Your task to perform on an android device: Go to privacy settings Image 0: 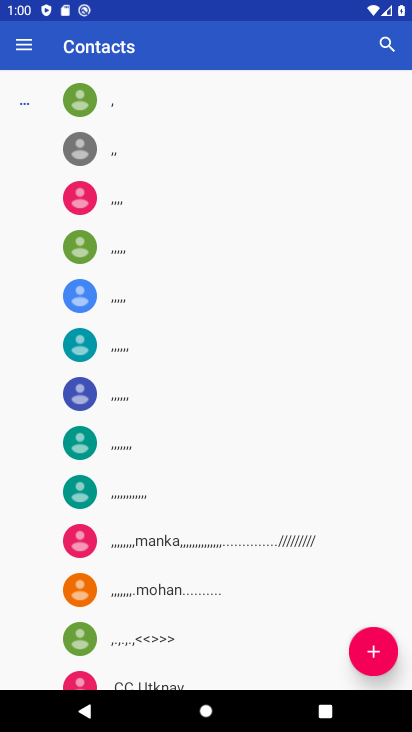
Step 0: press home button
Your task to perform on an android device: Go to privacy settings Image 1: 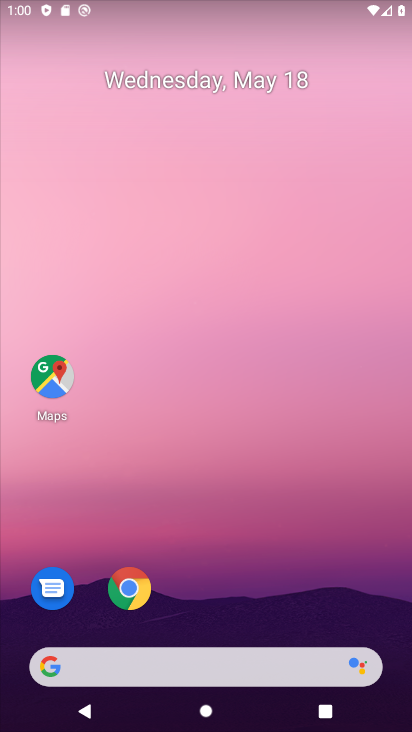
Step 1: drag from (336, 547) to (321, 59)
Your task to perform on an android device: Go to privacy settings Image 2: 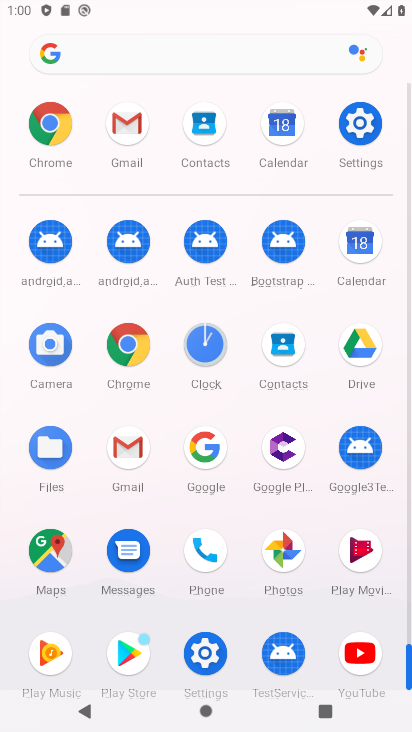
Step 2: click (368, 136)
Your task to perform on an android device: Go to privacy settings Image 3: 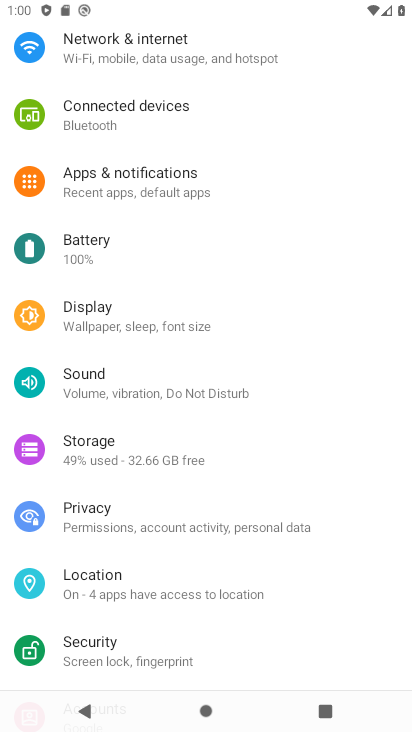
Step 3: drag from (341, 613) to (341, 343)
Your task to perform on an android device: Go to privacy settings Image 4: 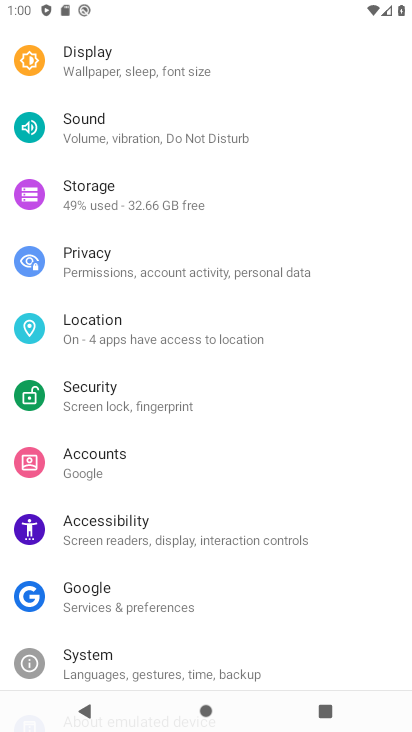
Step 4: drag from (337, 611) to (345, 359)
Your task to perform on an android device: Go to privacy settings Image 5: 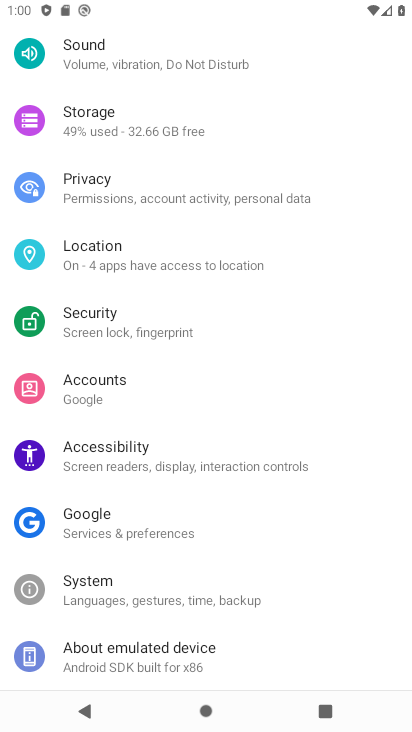
Step 5: drag from (330, 245) to (333, 442)
Your task to perform on an android device: Go to privacy settings Image 6: 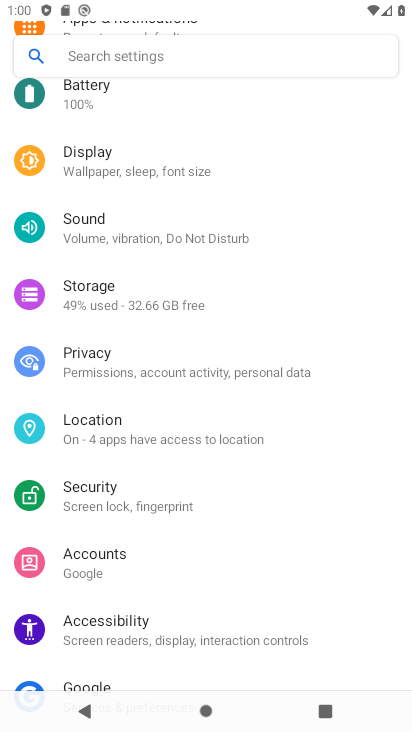
Step 6: drag from (347, 204) to (323, 482)
Your task to perform on an android device: Go to privacy settings Image 7: 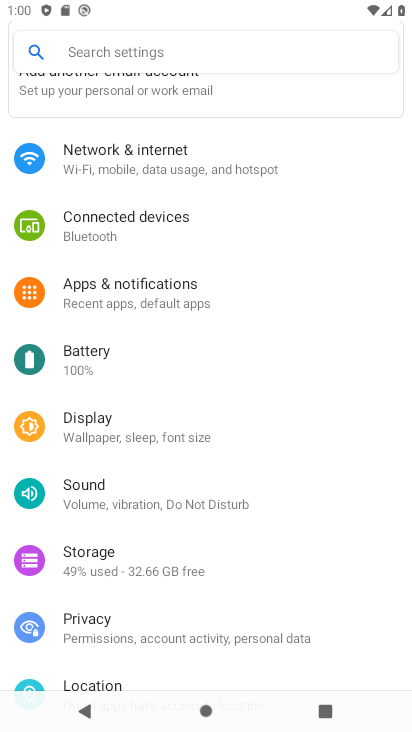
Step 7: drag from (343, 239) to (340, 442)
Your task to perform on an android device: Go to privacy settings Image 8: 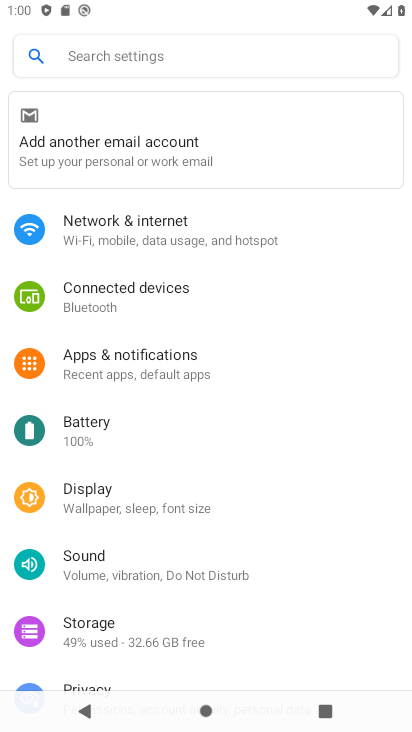
Step 8: drag from (336, 581) to (341, 386)
Your task to perform on an android device: Go to privacy settings Image 9: 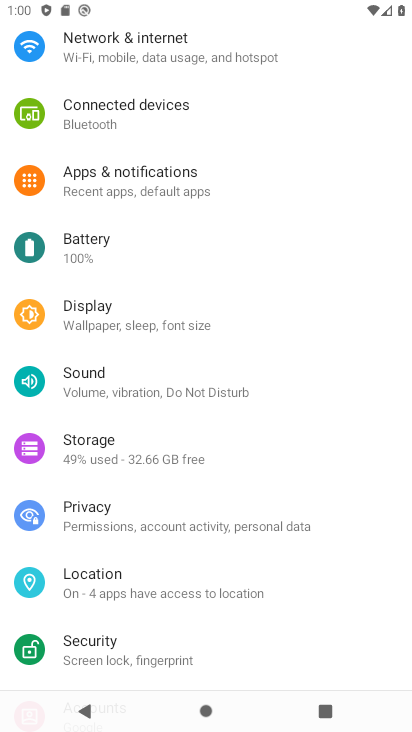
Step 9: drag from (339, 587) to (322, 370)
Your task to perform on an android device: Go to privacy settings Image 10: 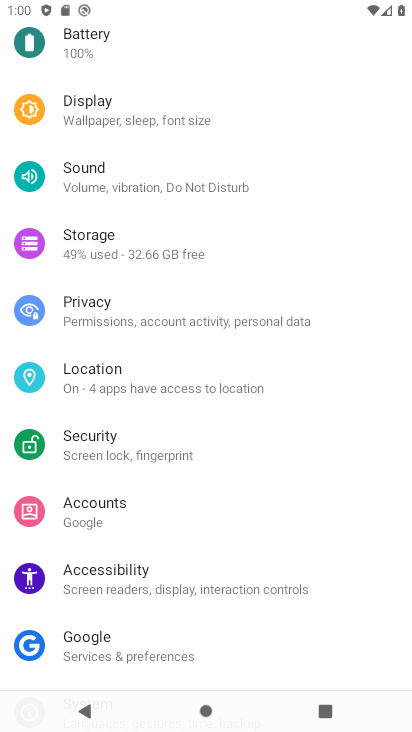
Step 10: drag from (332, 572) to (336, 391)
Your task to perform on an android device: Go to privacy settings Image 11: 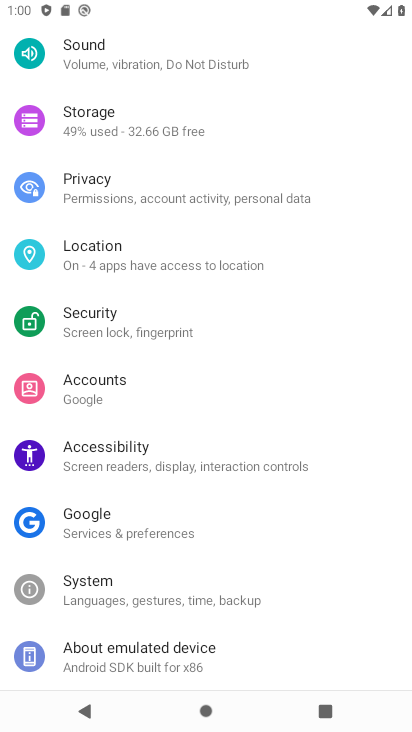
Step 11: drag from (344, 582) to (349, 398)
Your task to perform on an android device: Go to privacy settings Image 12: 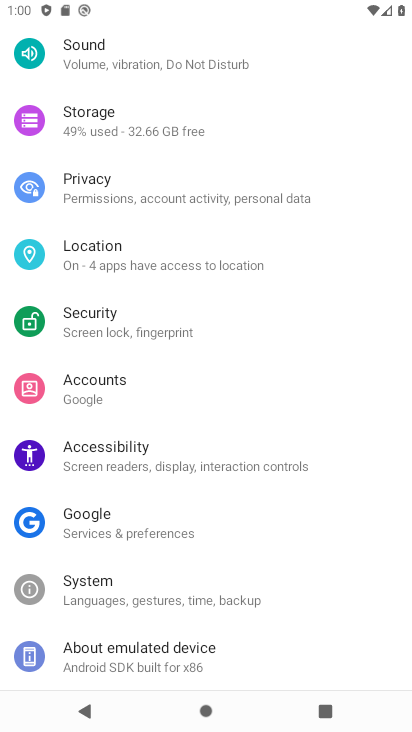
Step 12: drag from (330, 286) to (318, 440)
Your task to perform on an android device: Go to privacy settings Image 13: 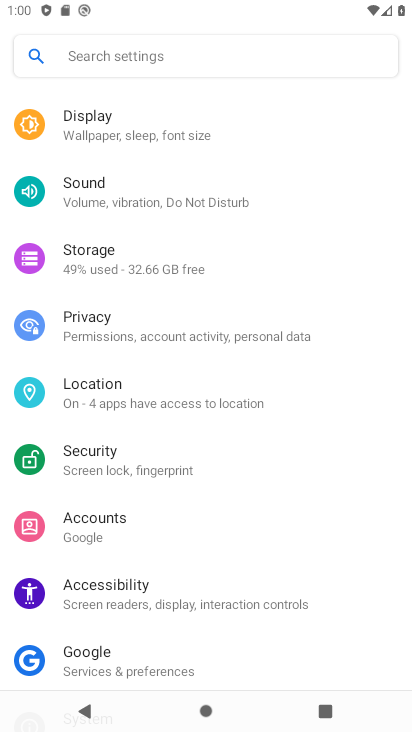
Step 13: drag from (331, 273) to (334, 388)
Your task to perform on an android device: Go to privacy settings Image 14: 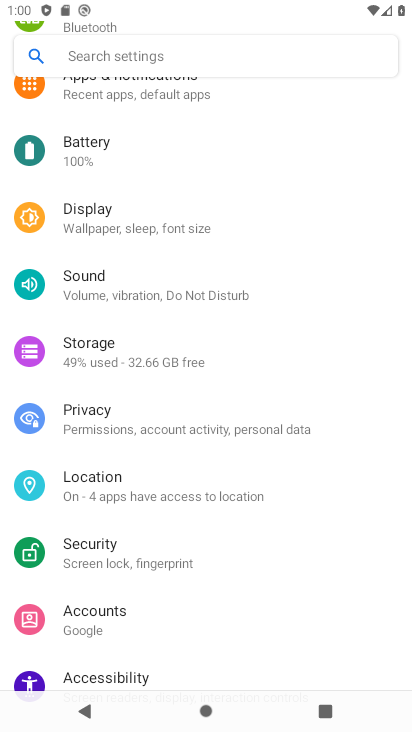
Step 14: click (214, 432)
Your task to perform on an android device: Go to privacy settings Image 15: 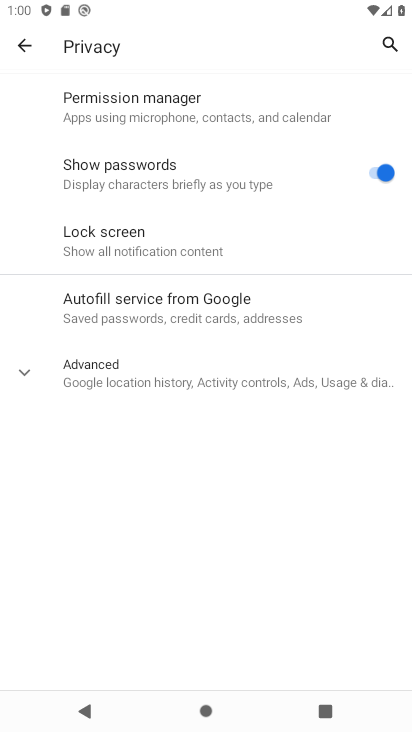
Step 15: task complete